Your task to perform on an android device: Open settings Image 0: 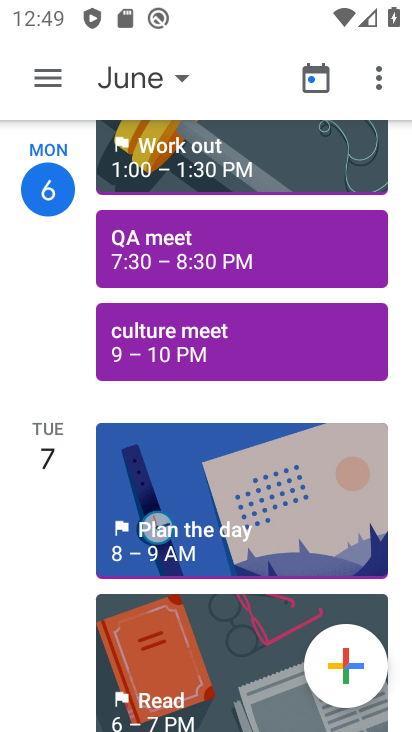
Step 0: press home button
Your task to perform on an android device: Open settings Image 1: 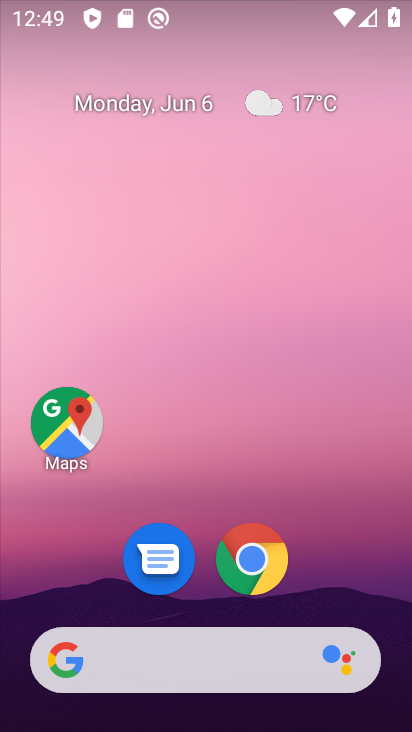
Step 1: drag from (216, 685) to (256, 104)
Your task to perform on an android device: Open settings Image 2: 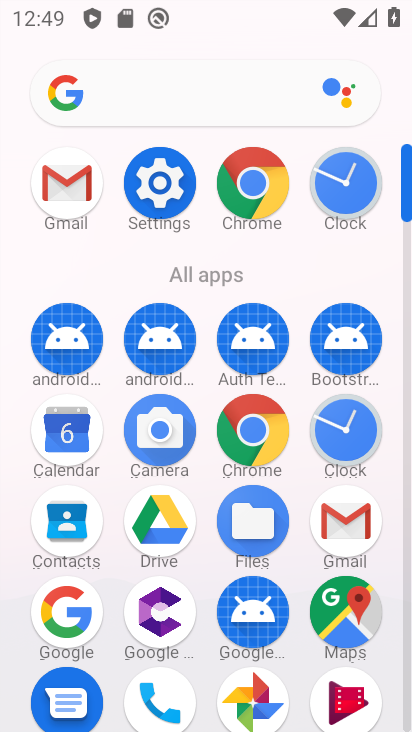
Step 2: click (172, 200)
Your task to perform on an android device: Open settings Image 3: 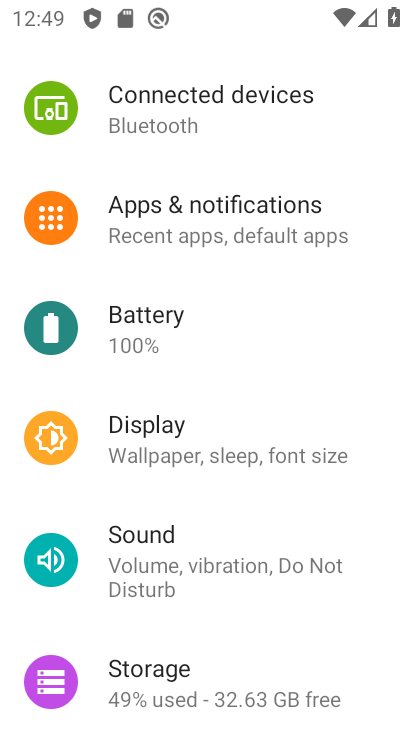
Step 3: task complete